Your task to perform on an android device: View the shopping cart on walmart. Add razer blade to the cart on walmart, then select checkout. Image 0: 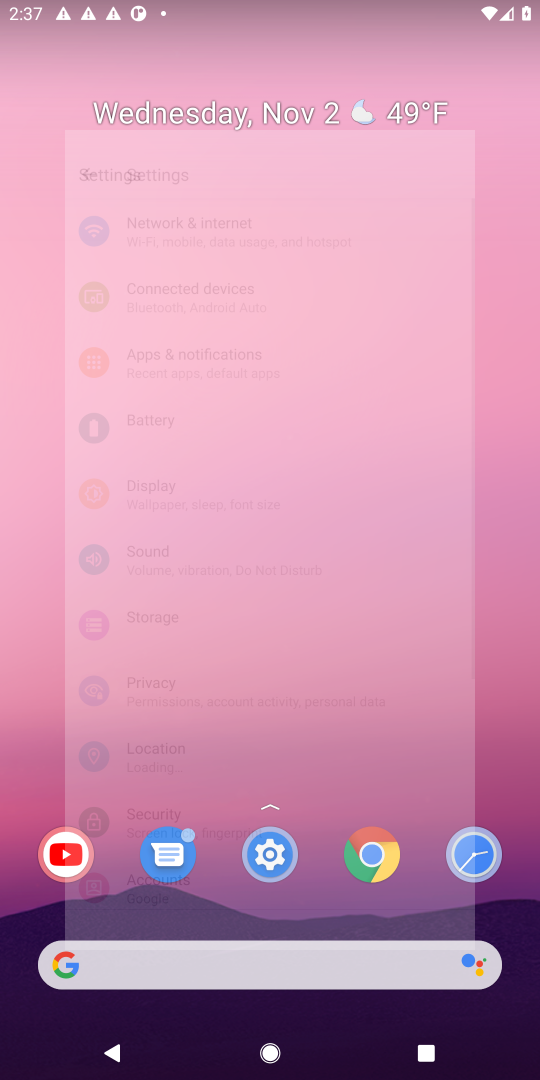
Step 0: click (136, 964)
Your task to perform on an android device: View the shopping cart on walmart. Add razer blade to the cart on walmart, then select checkout. Image 1: 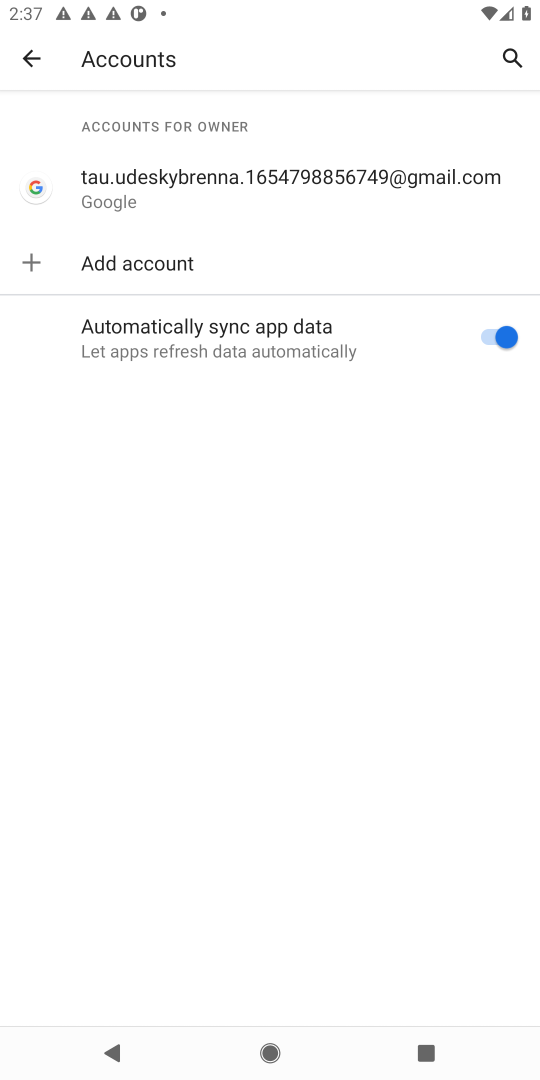
Step 1: press home button
Your task to perform on an android device: View the shopping cart on walmart. Add razer blade to the cart on walmart, then select checkout. Image 2: 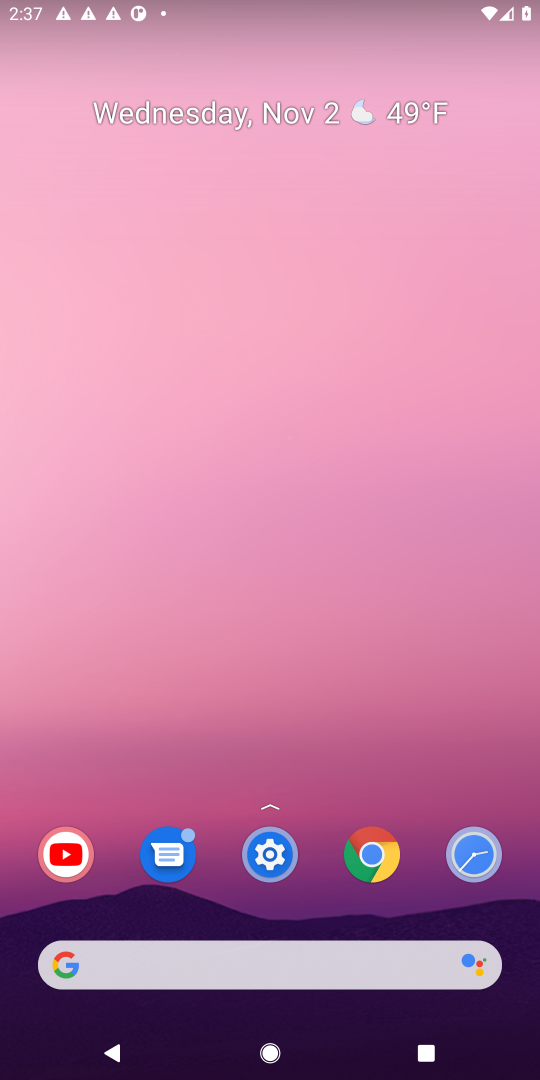
Step 2: click (243, 976)
Your task to perform on an android device: View the shopping cart on walmart. Add razer blade to the cart on walmart, then select checkout. Image 3: 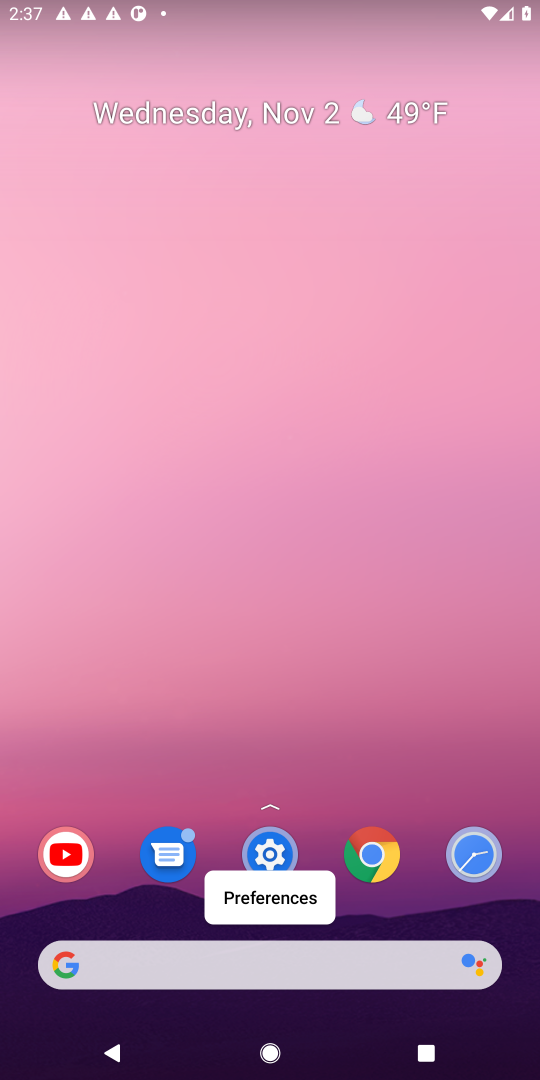
Step 3: click (243, 976)
Your task to perform on an android device: View the shopping cart on walmart. Add razer blade to the cart on walmart, then select checkout. Image 4: 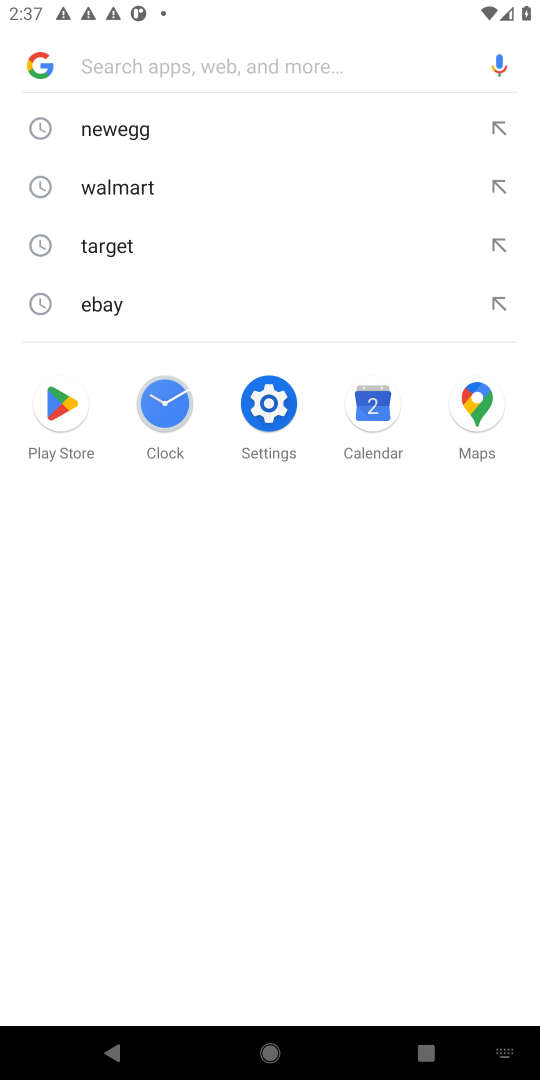
Step 4: click (143, 197)
Your task to perform on an android device: View the shopping cart on walmart. Add razer blade to the cart on walmart, then select checkout. Image 5: 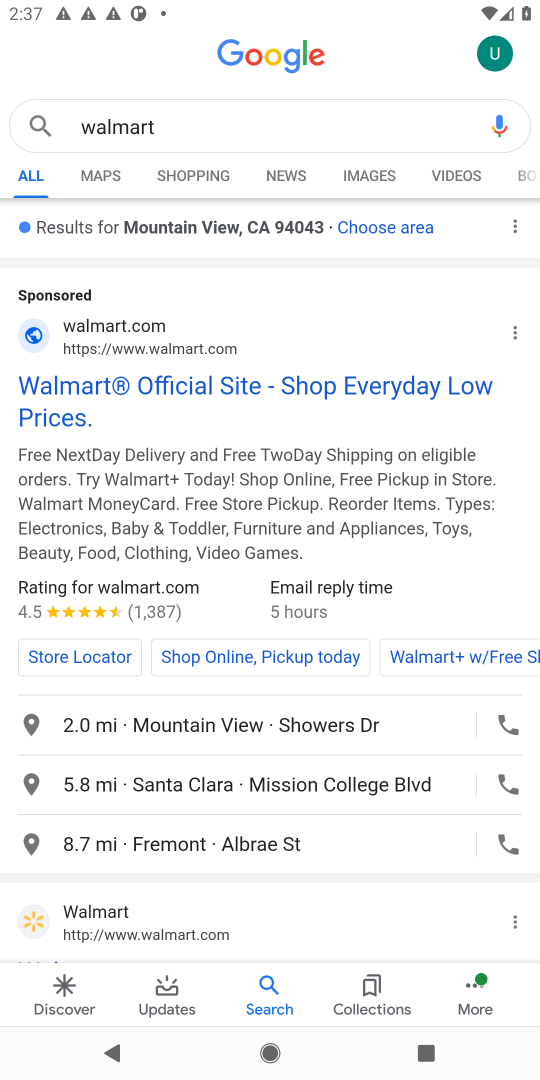
Step 5: click (137, 353)
Your task to perform on an android device: View the shopping cart on walmart. Add razer blade to the cart on walmart, then select checkout. Image 6: 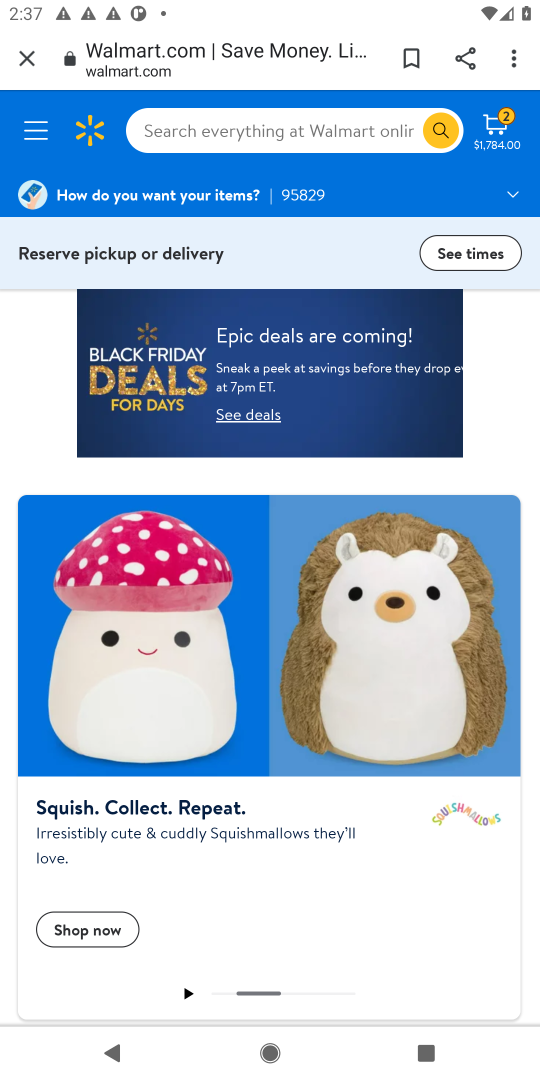
Step 6: click (497, 140)
Your task to perform on an android device: View the shopping cart on walmart. Add razer blade to the cart on walmart, then select checkout. Image 7: 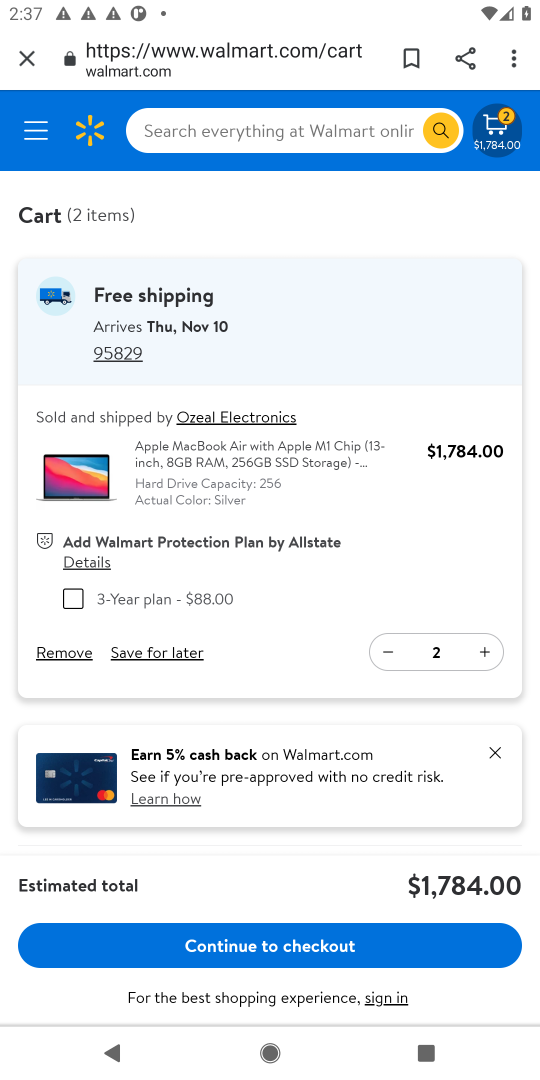
Step 7: click (277, 144)
Your task to perform on an android device: View the shopping cart on walmart. Add razer blade to the cart on walmart, then select checkout. Image 8: 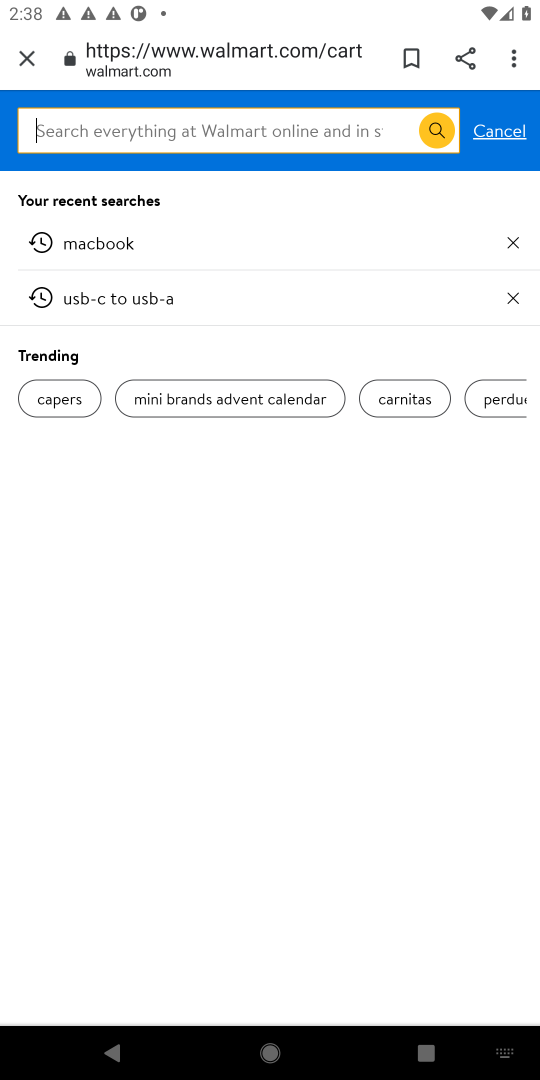
Step 8: click (277, 144)
Your task to perform on an android device: View the shopping cart on walmart. Add razer blade to the cart on walmart, then select checkout. Image 9: 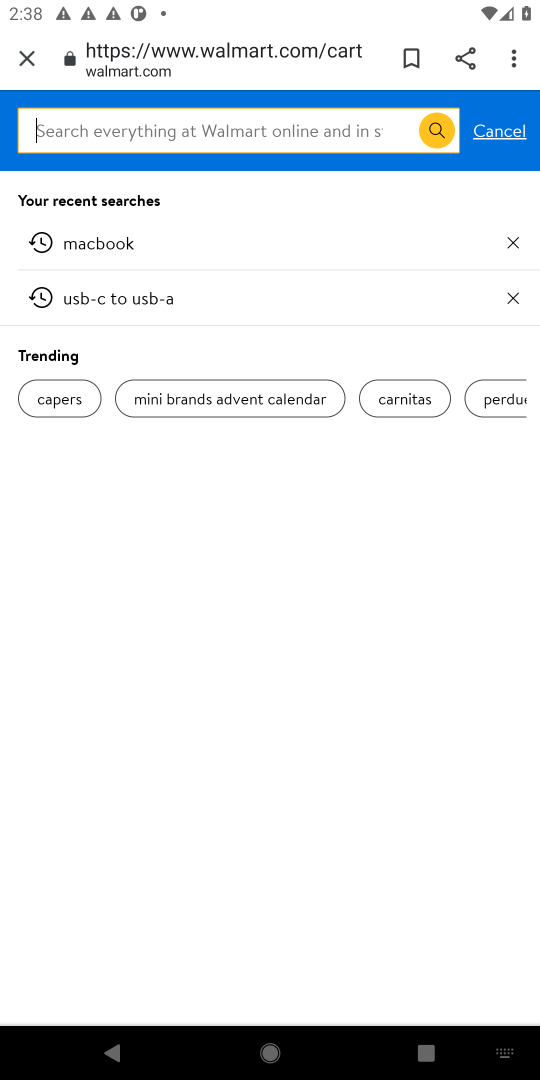
Step 9: click (277, 144)
Your task to perform on an android device: View the shopping cart on walmart. Add razer blade to the cart on walmart, then select checkout. Image 10: 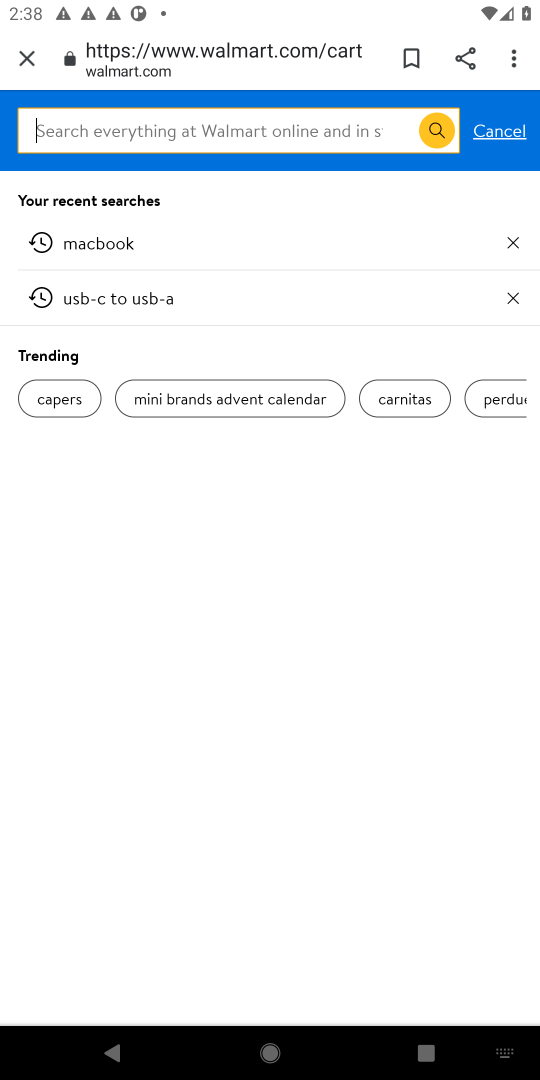
Step 10: type "razer blade"
Your task to perform on an android device: View the shopping cart on walmart. Add razer blade to the cart on walmart, then select checkout. Image 11: 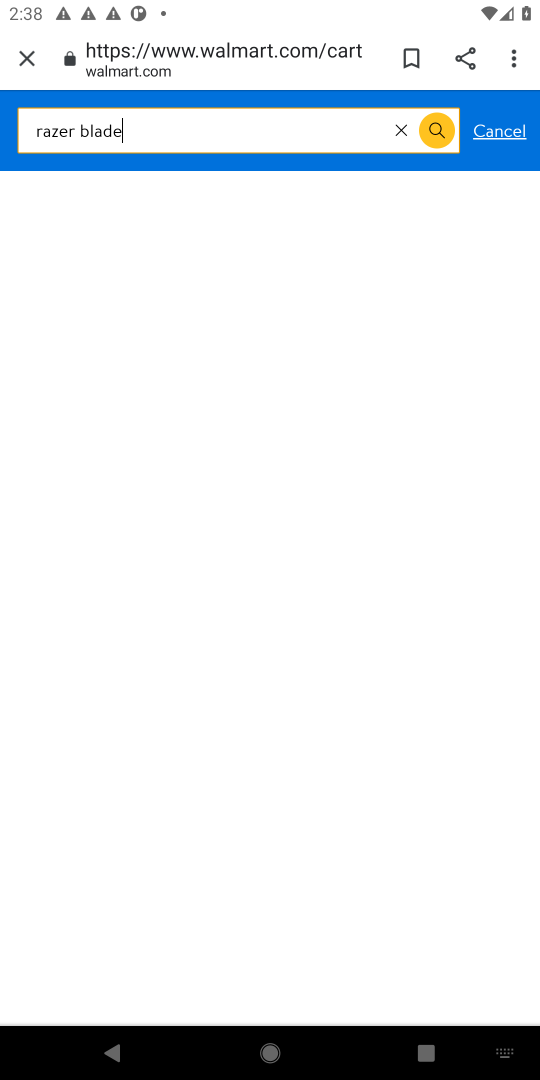
Step 11: press enter
Your task to perform on an android device: View the shopping cart on walmart. Add razer blade to the cart on walmart, then select checkout. Image 12: 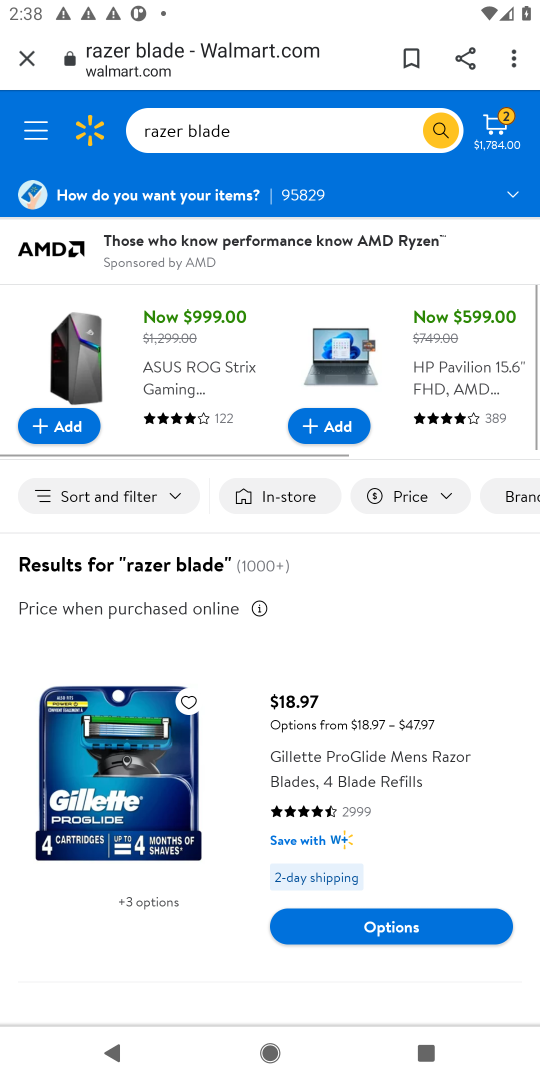
Step 12: click (385, 945)
Your task to perform on an android device: View the shopping cart on walmart. Add razer blade to the cart on walmart, then select checkout. Image 13: 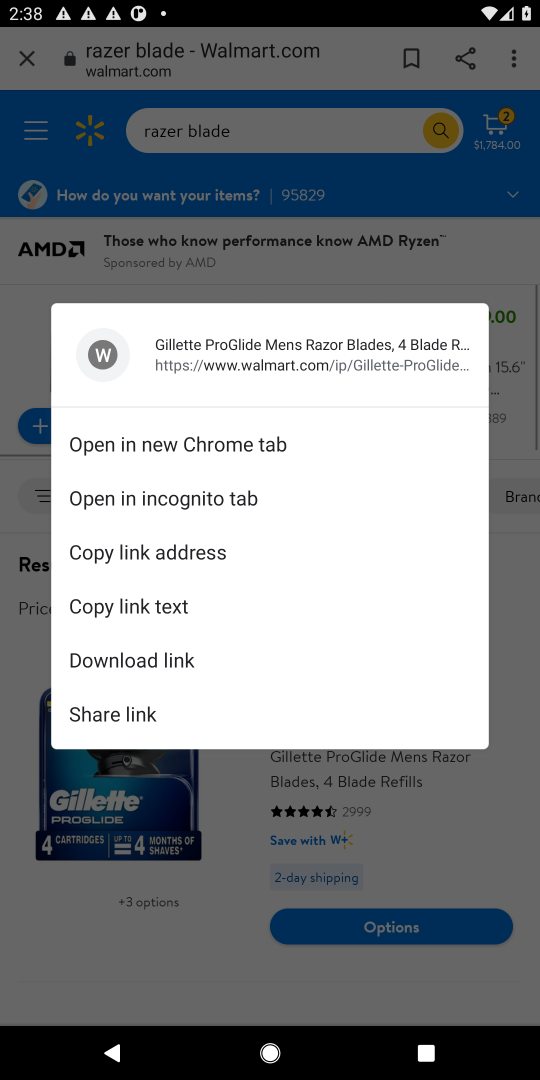
Step 13: click (386, 922)
Your task to perform on an android device: View the shopping cart on walmart. Add razer blade to the cart on walmart, then select checkout. Image 14: 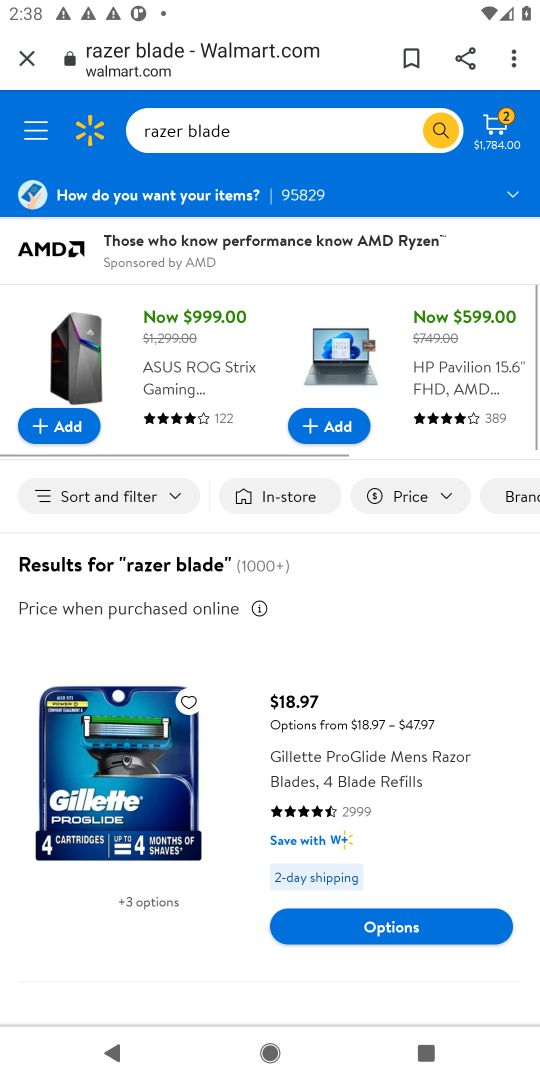
Step 14: click (386, 922)
Your task to perform on an android device: View the shopping cart on walmart. Add razer blade to the cart on walmart, then select checkout. Image 15: 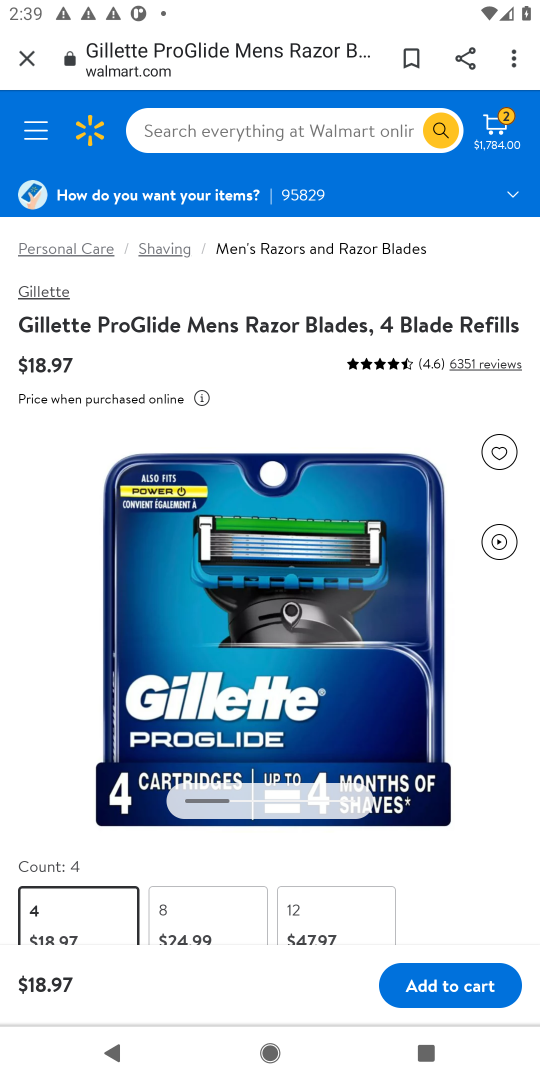
Step 15: click (444, 980)
Your task to perform on an android device: View the shopping cart on walmart. Add razer blade to the cart on walmart, then select checkout. Image 16: 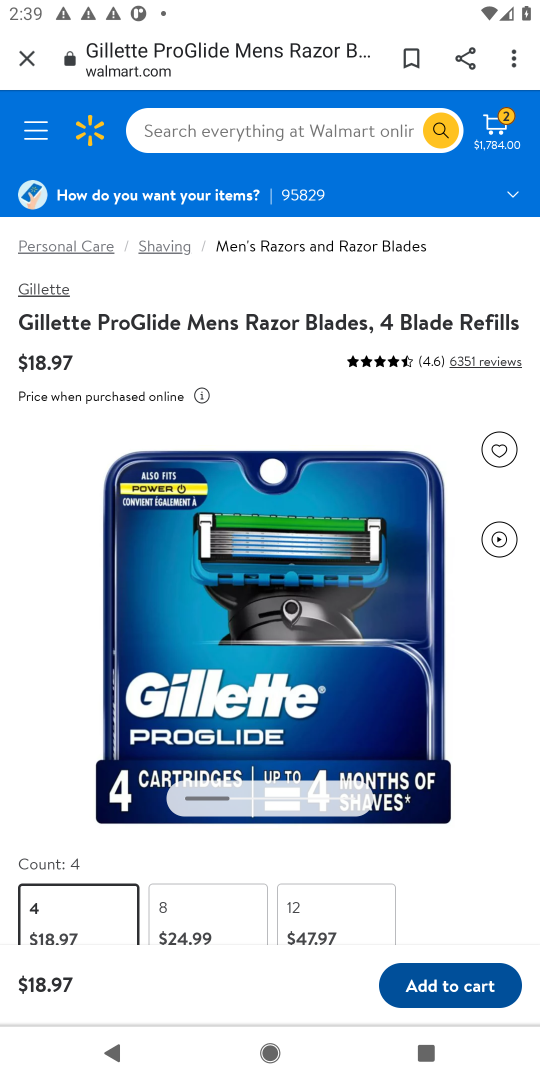
Step 16: click (441, 988)
Your task to perform on an android device: View the shopping cart on walmart. Add razer blade to the cart on walmart, then select checkout. Image 17: 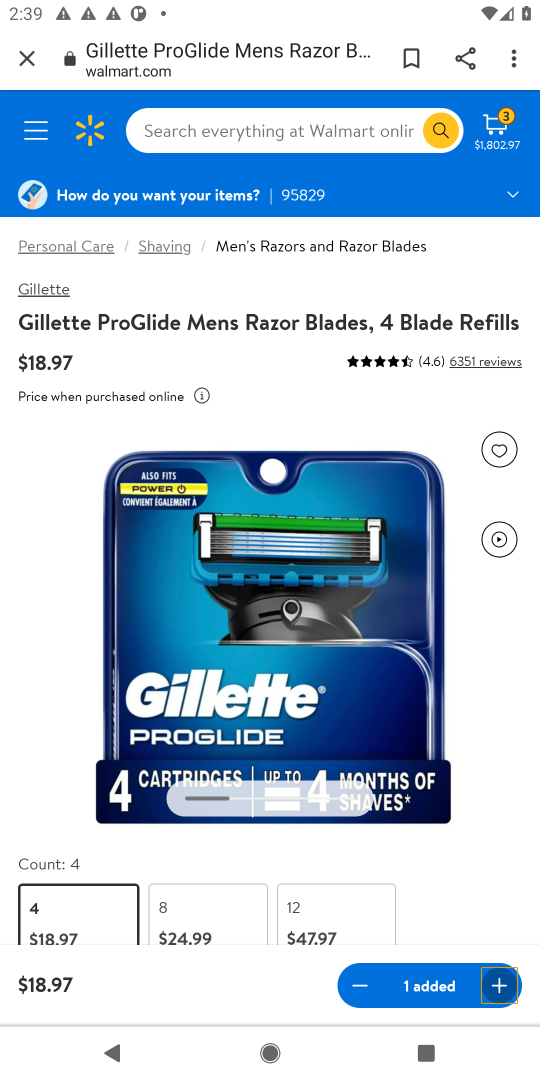
Step 17: click (494, 140)
Your task to perform on an android device: View the shopping cart on walmart. Add razer blade to the cart on walmart, then select checkout. Image 18: 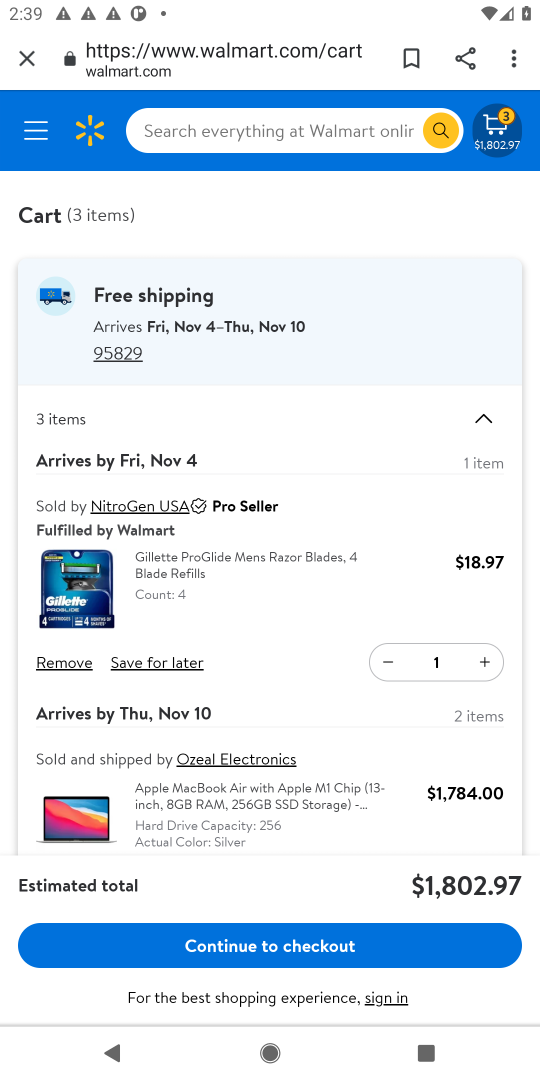
Step 18: click (325, 952)
Your task to perform on an android device: View the shopping cart on walmart. Add razer blade to the cart on walmart, then select checkout. Image 19: 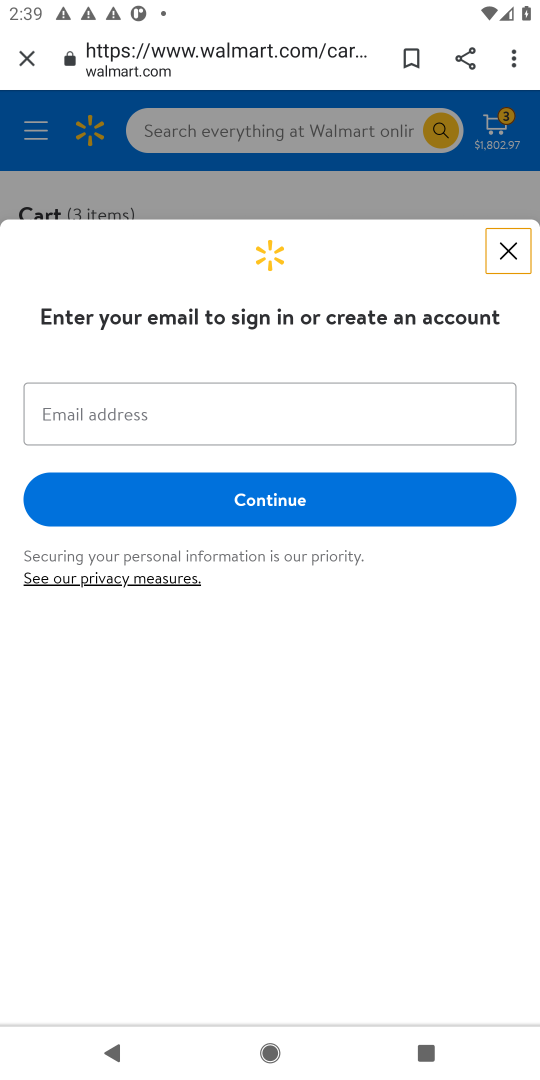
Step 19: click (502, 263)
Your task to perform on an android device: View the shopping cart on walmart. Add razer blade to the cart on walmart, then select checkout. Image 20: 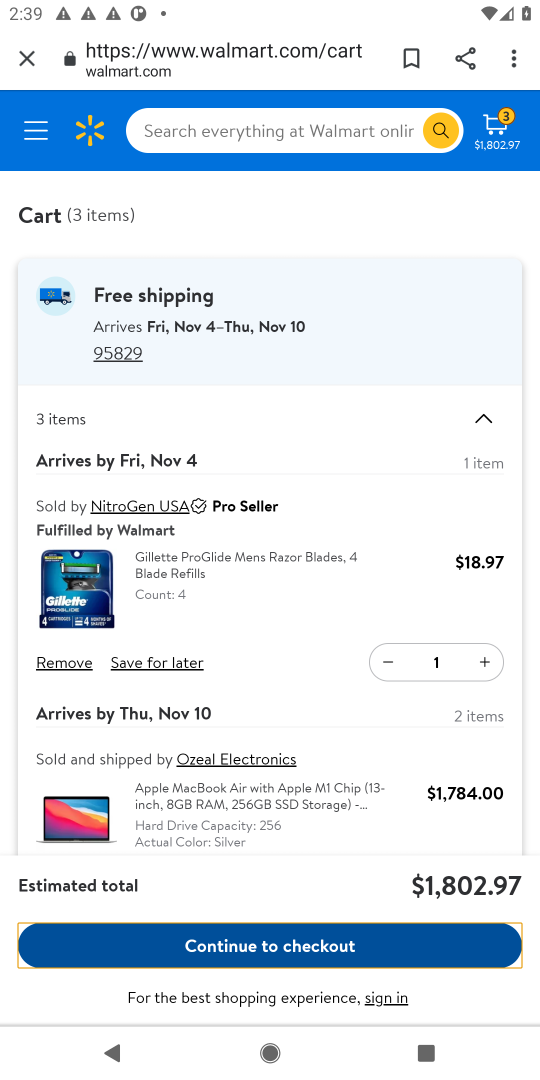
Step 20: task complete